Your task to perform on an android device: Open Yahoo.com Image 0: 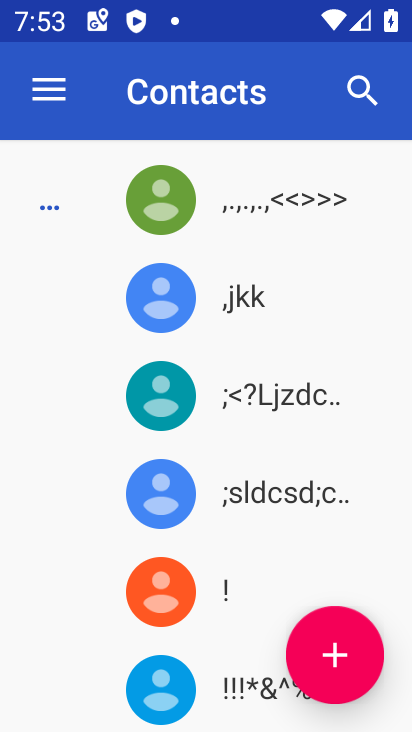
Step 0: press home button
Your task to perform on an android device: Open Yahoo.com Image 1: 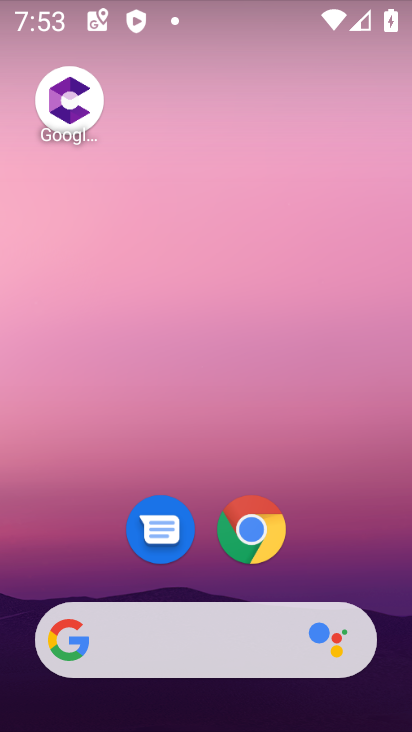
Step 1: click (253, 533)
Your task to perform on an android device: Open Yahoo.com Image 2: 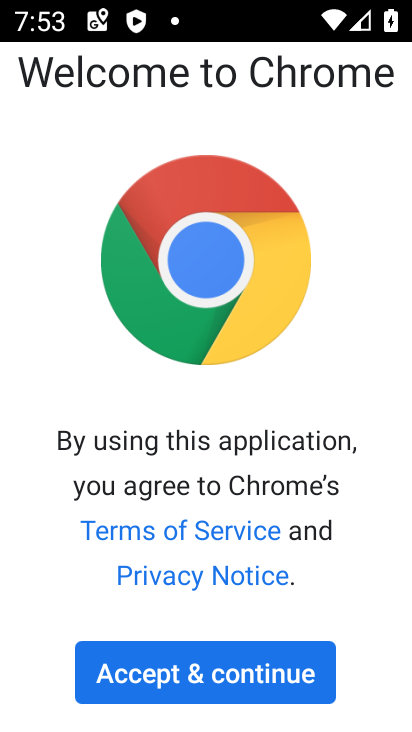
Step 2: click (233, 678)
Your task to perform on an android device: Open Yahoo.com Image 3: 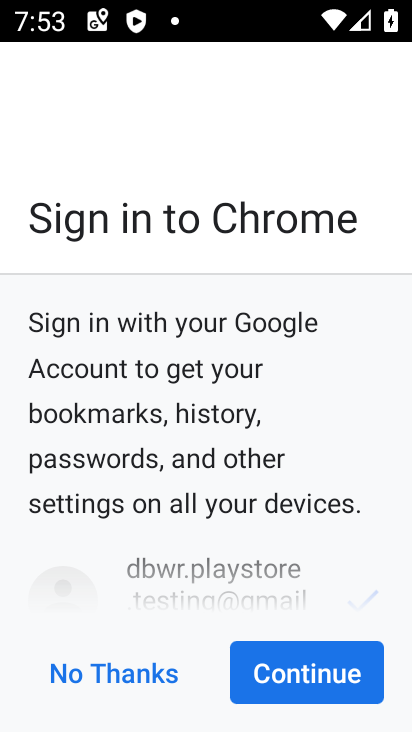
Step 3: click (283, 666)
Your task to perform on an android device: Open Yahoo.com Image 4: 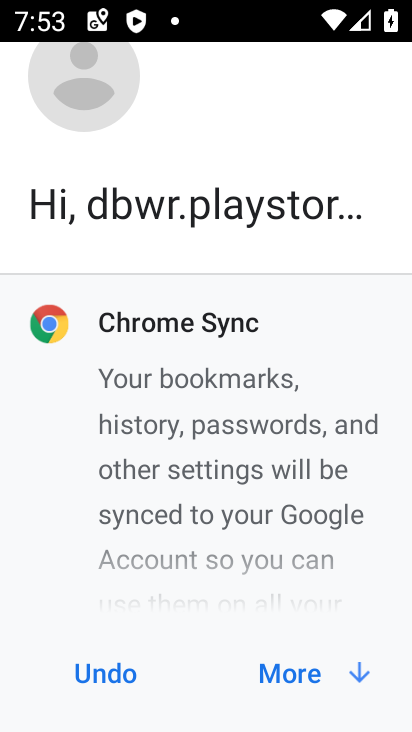
Step 4: click (319, 669)
Your task to perform on an android device: Open Yahoo.com Image 5: 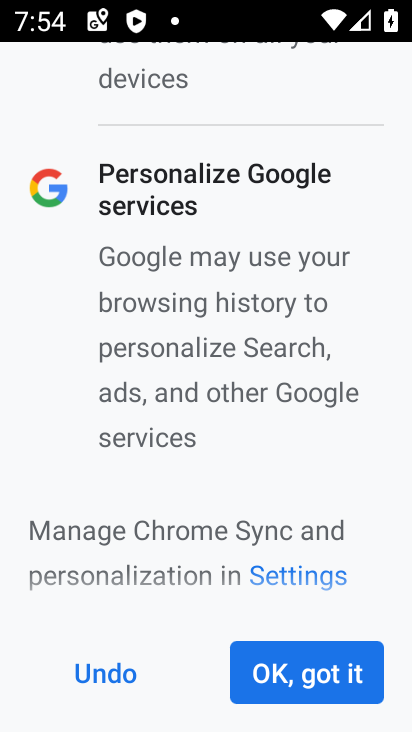
Step 5: click (307, 683)
Your task to perform on an android device: Open Yahoo.com Image 6: 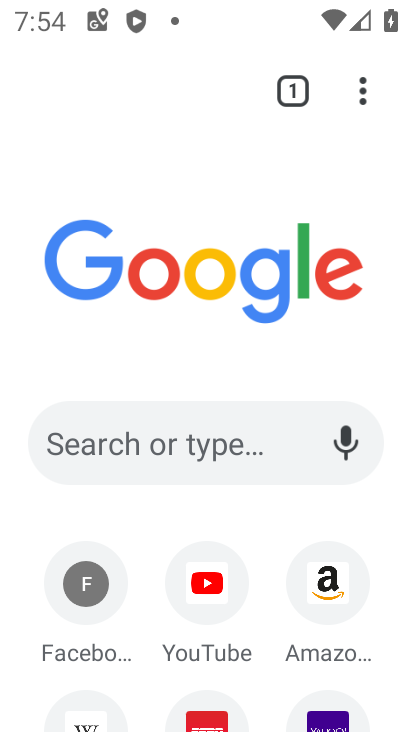
Step 6: click (318, 715)
Your task to perform on an android device: Open Yahoo.com Image 7: 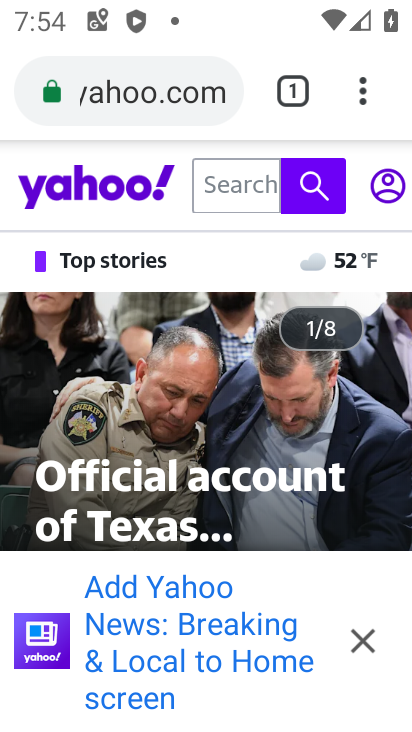
Step 7: task complete